Your task to perform on an android device: change the upload size in google photos Image 0: 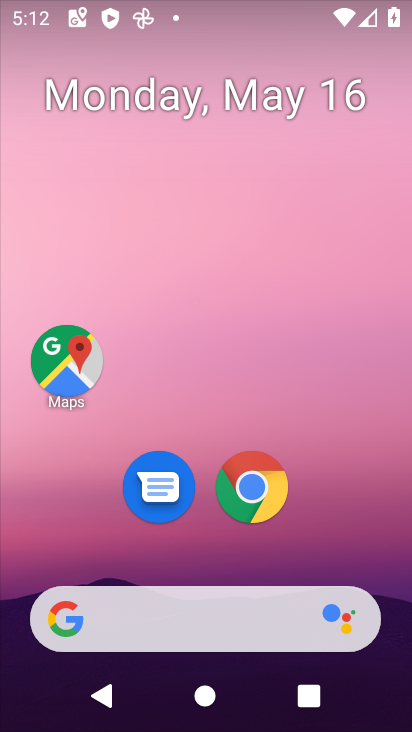
Step 0: drag from (404, 631) to (332, 72)
Your task to perform on an android device: change the upload size in google photos Image 1: 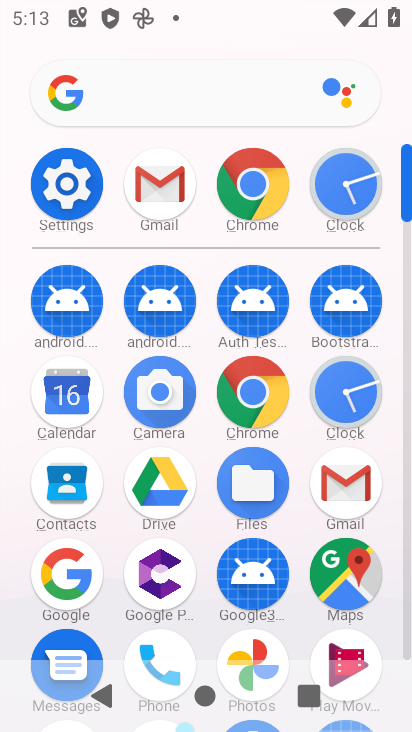
Step 1: click (409, 640)
Your task to perform on an android device: change the upload size in google photos Image 2: 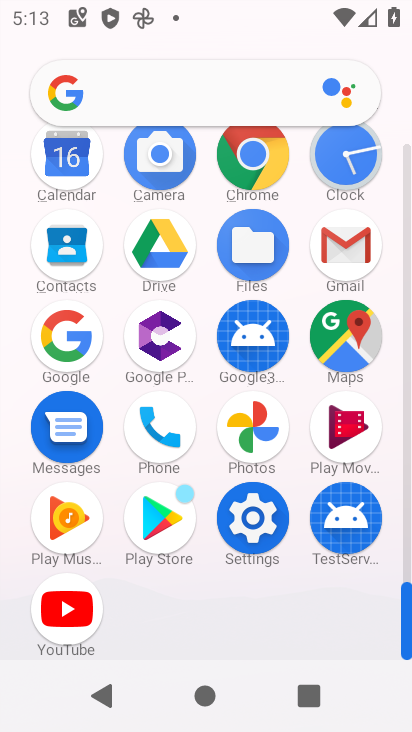
Step 2: click (252, 425)
Your task to perform on an android device: change the upload size in google photos Image 3: 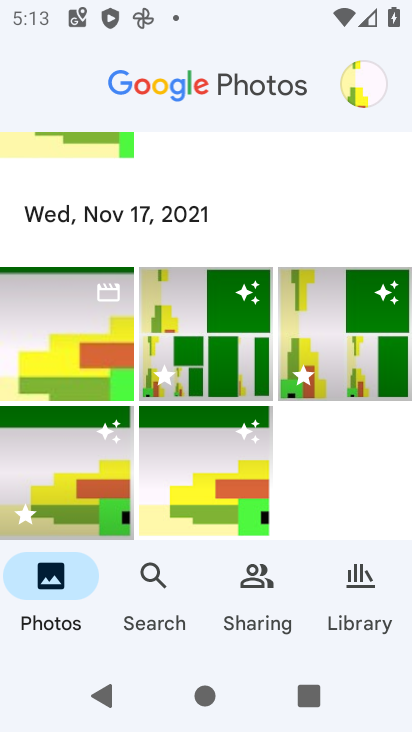
Step 3: click (363, 93)
Your task to perform on an android device: change the upload size in google photos Image 4: 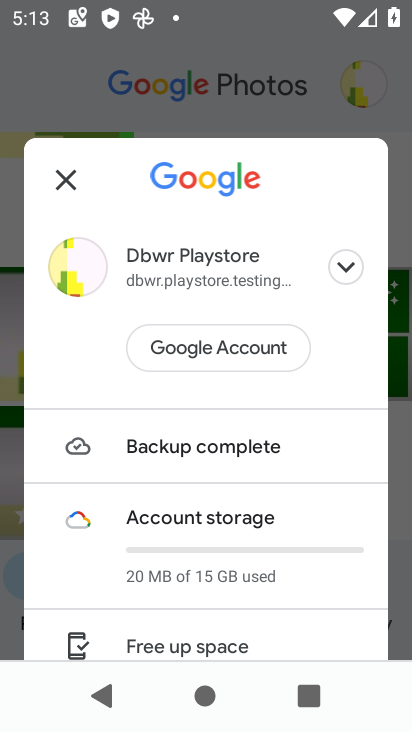
Step 4: drag from (311, 608) to (277, 191)
Your task to perform on an android device: change the upload size in google photos Image 5: 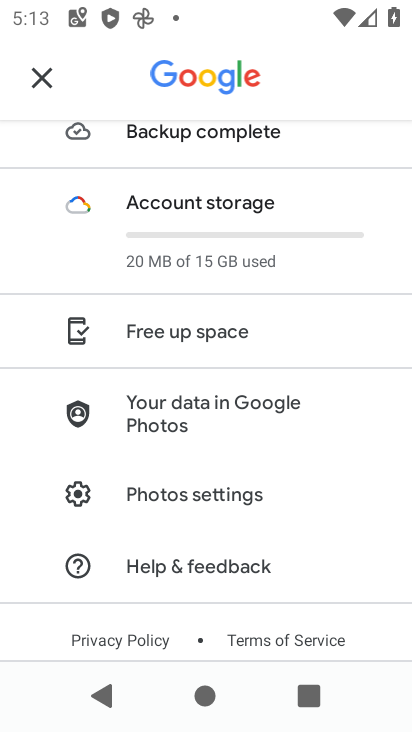
Step 5: click (155, 495)
Your task to perform on an android device: change the upload size in google photos Image 6: 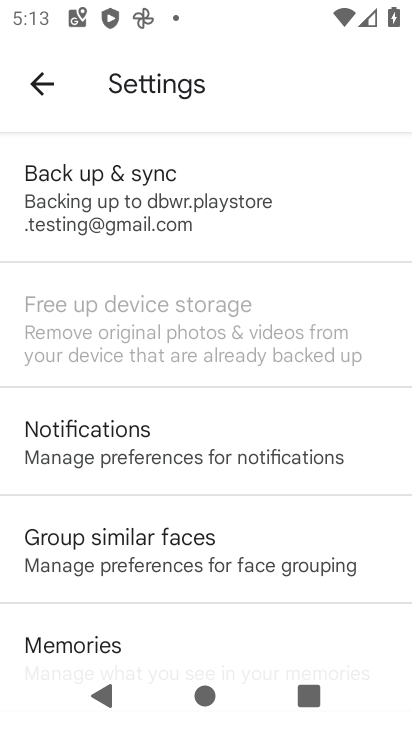
Step 6: click (118, 188)
Your task to perform on an android device: change the upload size in google photos Image 7: 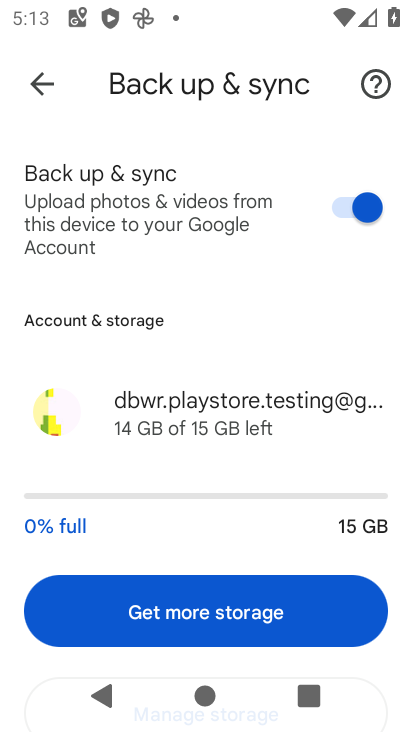
Step 7: drag from (263, 559) to (294, 48)
Your task to perform on an android device: change the upload size in google photos Image 8: 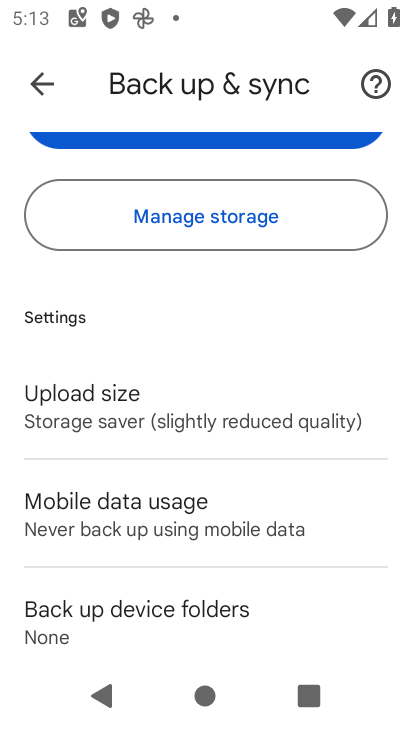
Step 8: click (104, 425)
Your task to perform on an android device: change the upload size in google photos Image 9: 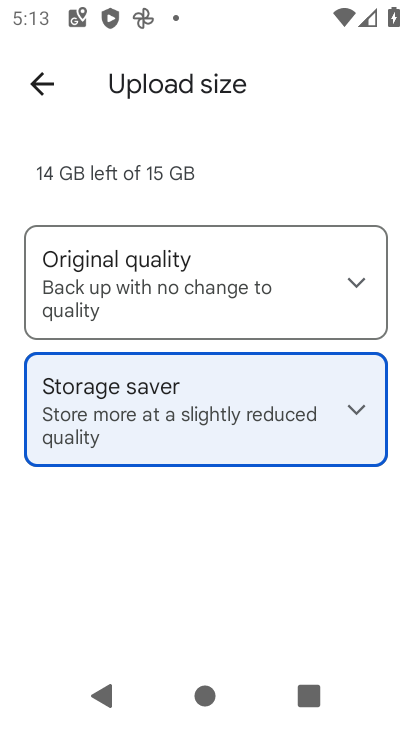
Step 9: click (127, 259)
Your task to perform on an android device: change the upload size in google photos Image 10: 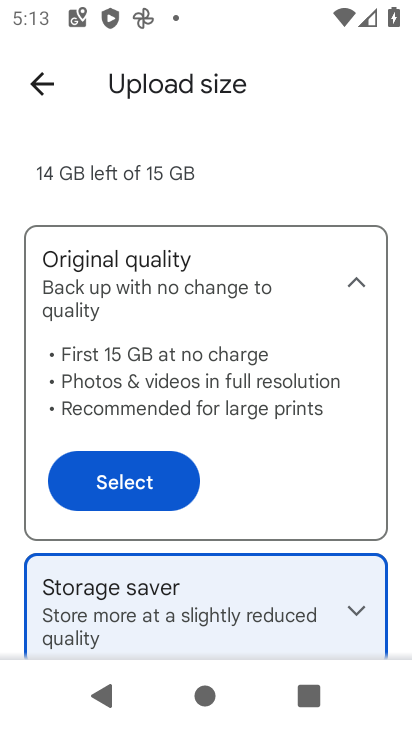
Step 10: click (121, 487)
Your task to perform on an android device: change the upload size in google photos Image 11: 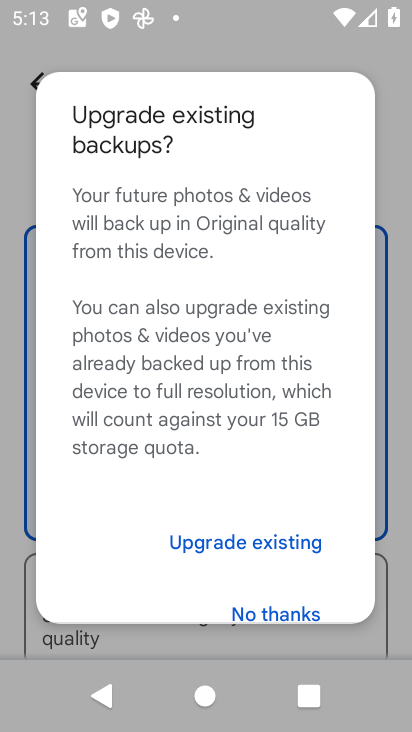
Step 11: click (278, 612)
Your task to perform on an android device: change the upload size in google photos Image 12: 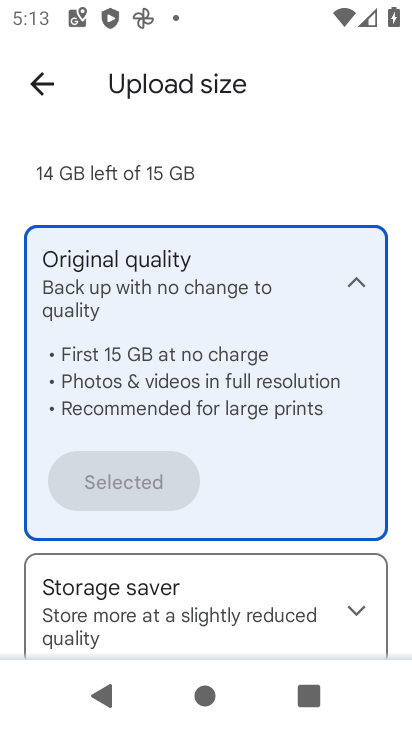
Step 12: task complete